Your task to perform on an android device: set default search engine in the chrome app Image 0: 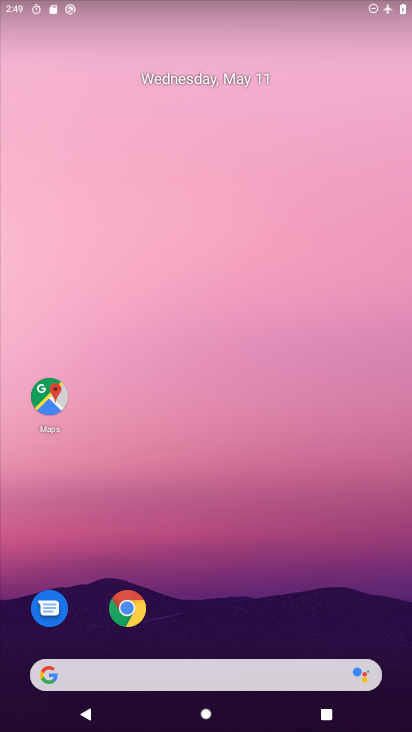
Step 0: click (126, 602)
Your task to perform on an android device: set default search engine in the chrome app Image 1: 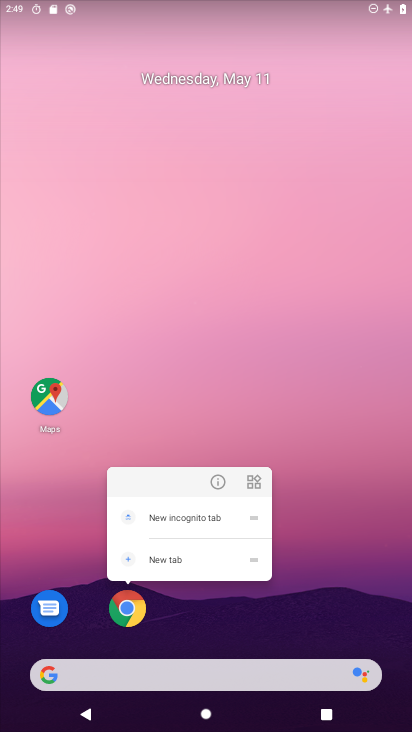
Step 1: click (130, 616)
Your task to perform on an android device: set default search engine in the chrome app Image 2: 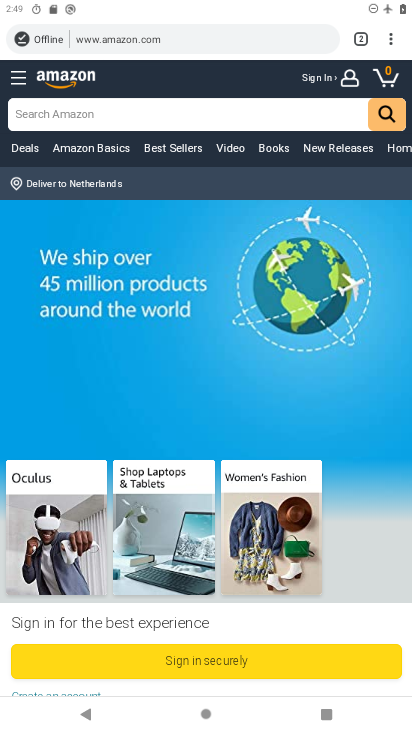
Step 2: click (394, 38)
Your task to perform on an android device: set default search engine in the chrome app Image 3: 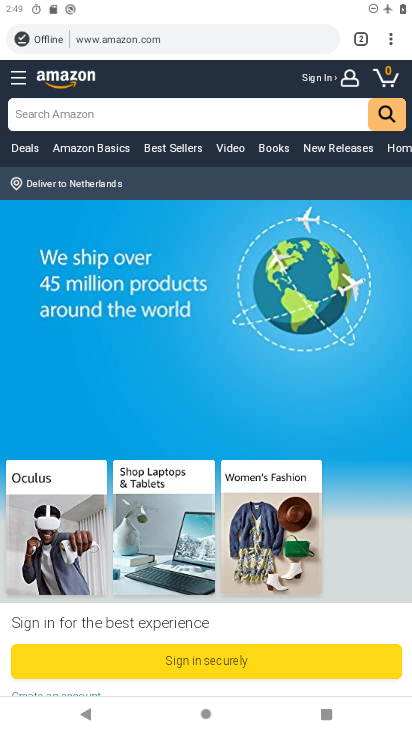
Step 3: click (385, 34)
Your task to perform on an android device: set default search engine in the chrome app Image 4: 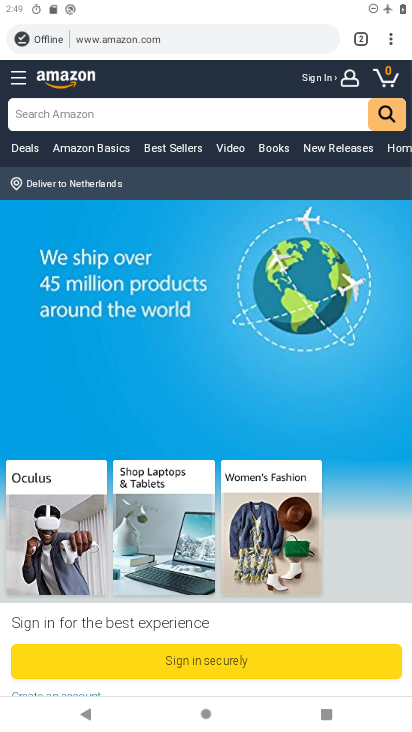
Step 4: click (385, 34)
Your task to perform on an android device: set default search engine in the chrome app Image 5: 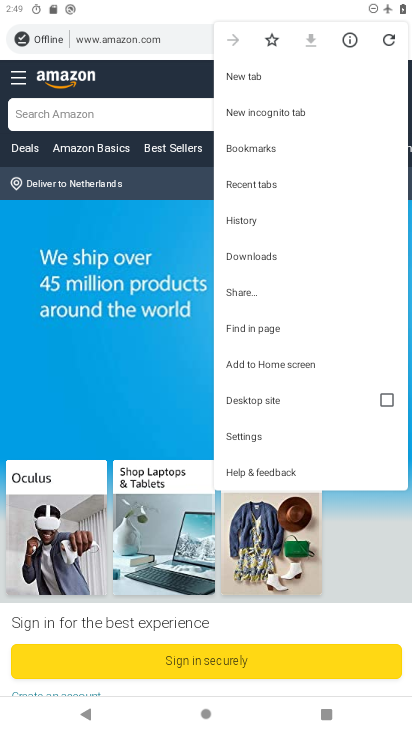
Step 5: click (323, 442)
Your task to perform on an android device: set default search engine in the chrome app Image 6: 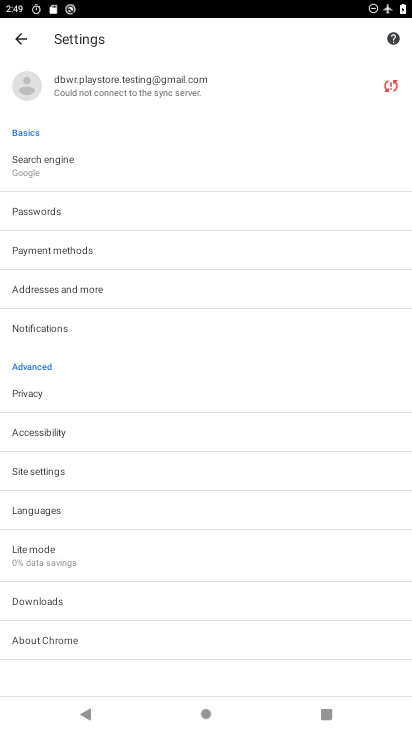
Step 6: click (83, 163)
Your task to perform on an android device: set default search engine in the chrome app Image 7: 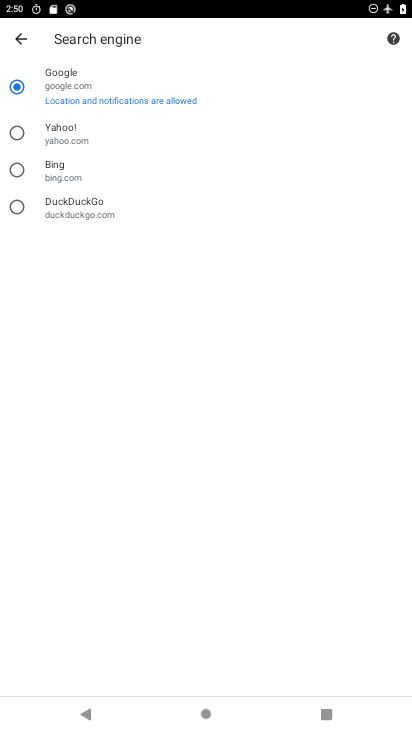
Step 7: task complete